Your task to perform on an android device: remove spam from my inbox in the gmail app Image 0: 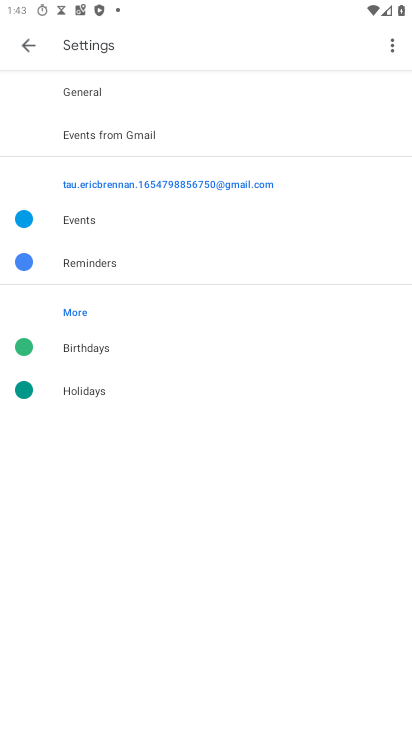
Step 0: press home button
Your task to perform on an android device: remove spam from my inbox in the gmail app Image 1: 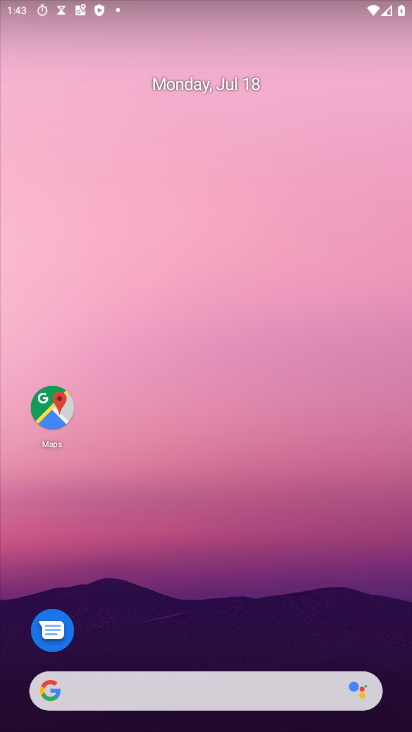
Step 1: drag from (256, 649) to (317, 6)
Your task to perform on an android device: remove spam from my inbox in the gmail app Image 2: 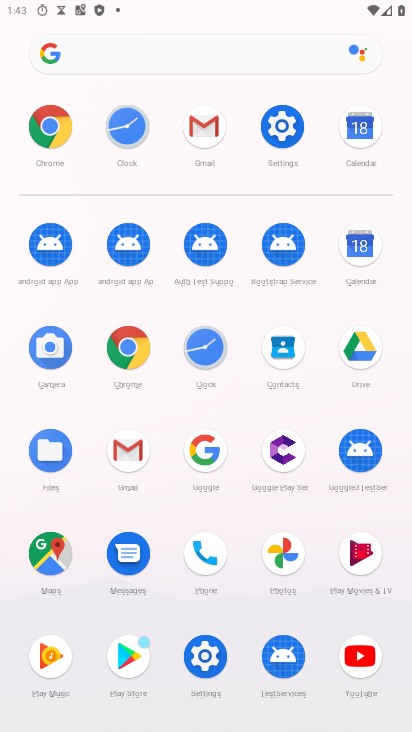
Step 2: click (126, 446)
Your task to perform on an android device: remove spam from my inbox in the gmail app Image 3: 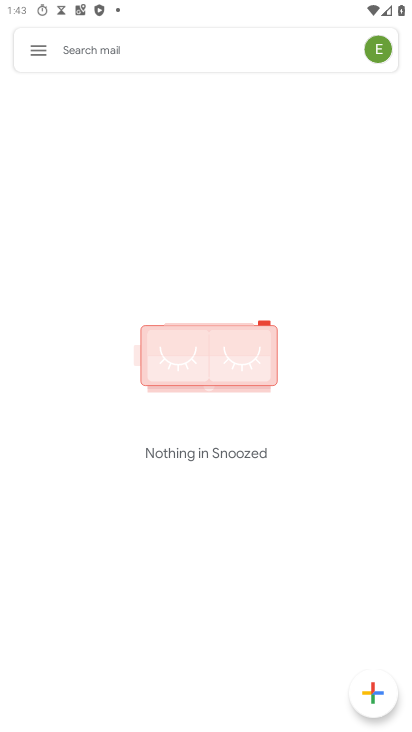
Step 3: click (41, 44)
Your task to perform on an android device: remove spam from my inbox in the gmail app Image 4: 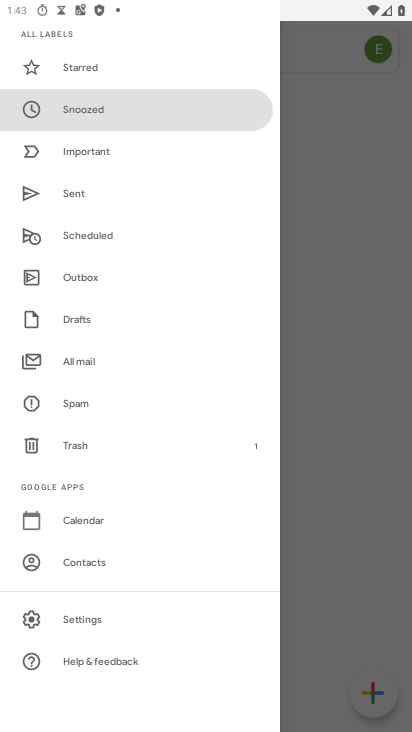
Step 4: click (88, 402)
Your task to perform on an android device: remove spam from my inbox in the gmail app Image 5: 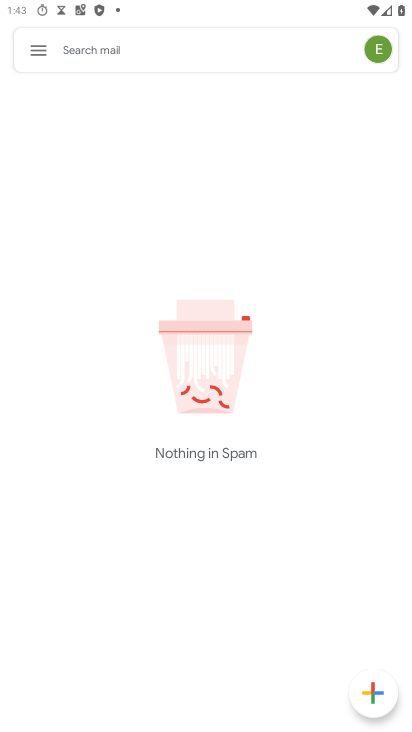
Step 5: task complete